Your task to perform on an android device: Set the phone to "Do not disturb". Image 0: 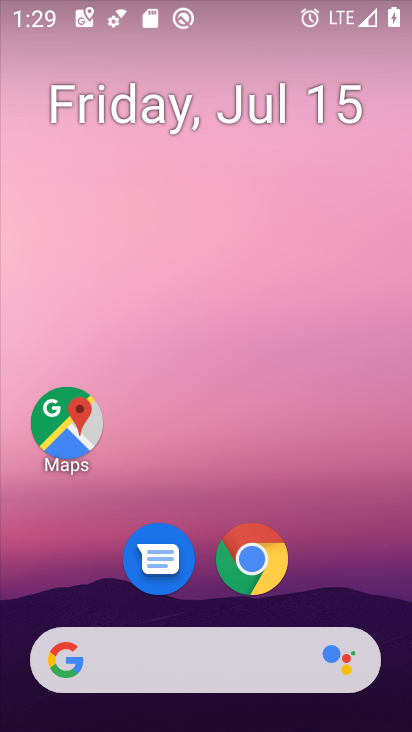
Step 0: drag from (354, 574) to (375, 84)
Your task to perform on an android device: Set the phone to "Do not disturb". Image 1: 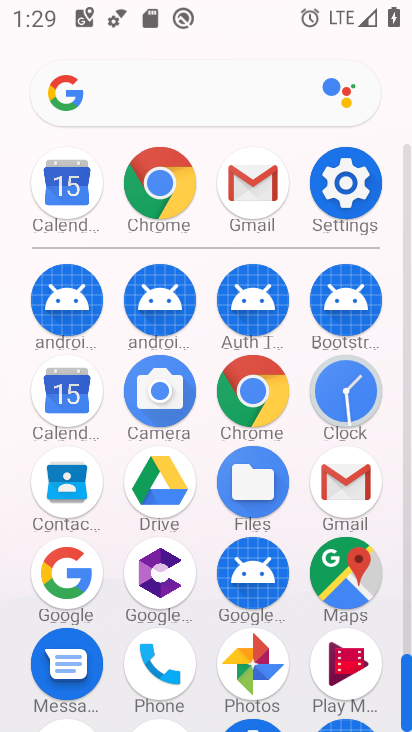
Step 1: click (347, 200)
Your task to perform on an android device: Set the phone to "Do not disturb". Image 2: 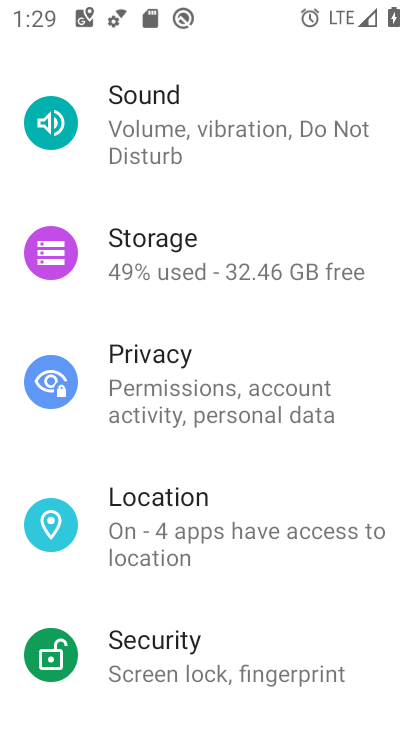
Step 2: drag from (363, 201) to (376, 340)
Your task to perform on an android device: Set the phone to "Do not disturb". Image 3: 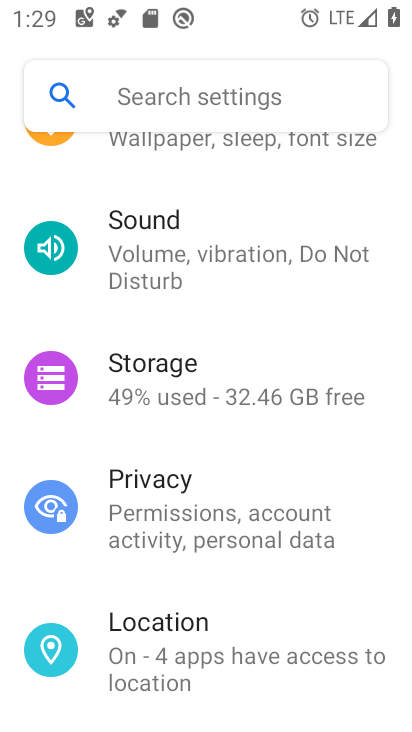
Step 3: drag from (380, 207) to (382, 389)
Your task to perform on an android device: Set the phone to "Do not disturb". Image 4: 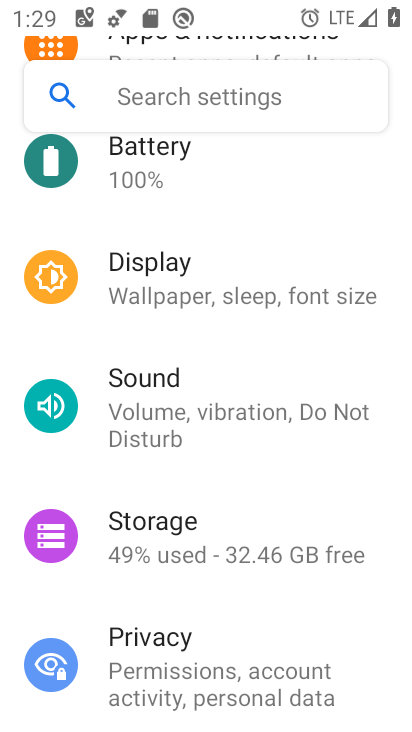
Step 4: drag from (367, 212) to (366, 418)
Your task to perform on an android device: Set the phone to "Do not disturb". Image 5: 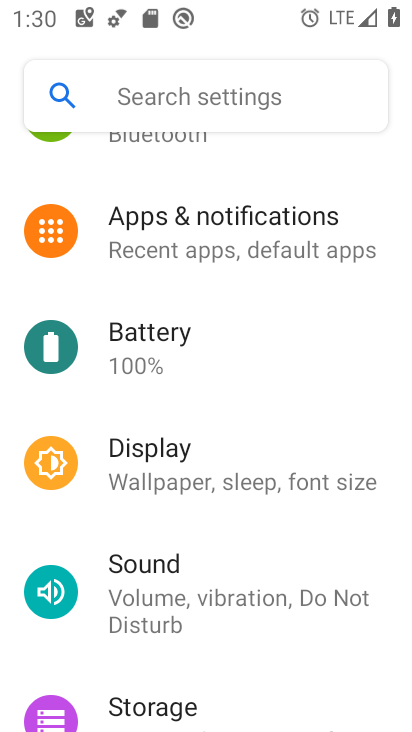
Step 5: click (302, 577)
Your task to perform on an android device: Set the phone to "Do not disturb". Image 6: 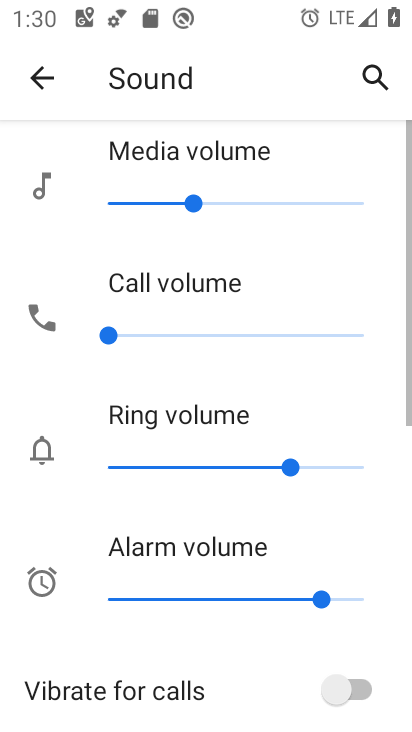
Step 6: drag from (365, 543) to (367, 450)
Your task to perform on an android device: Set the phone to "Do not disturb". Image 7: 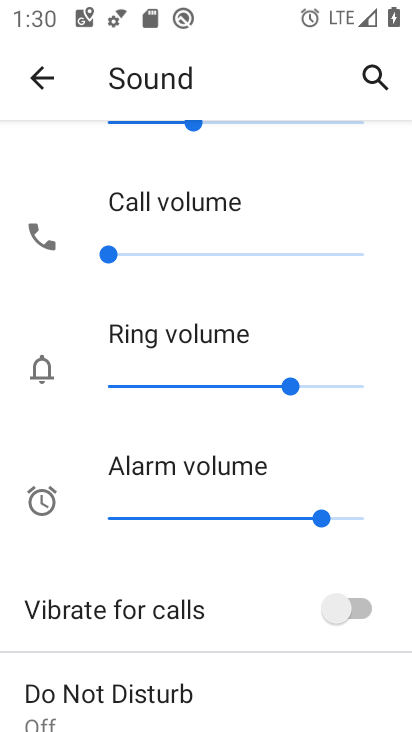
Step 7: drag from (366, 546) to (360, 432)
Your task to perform on an android device: Set the phone to "Do not disturb". Image 8: 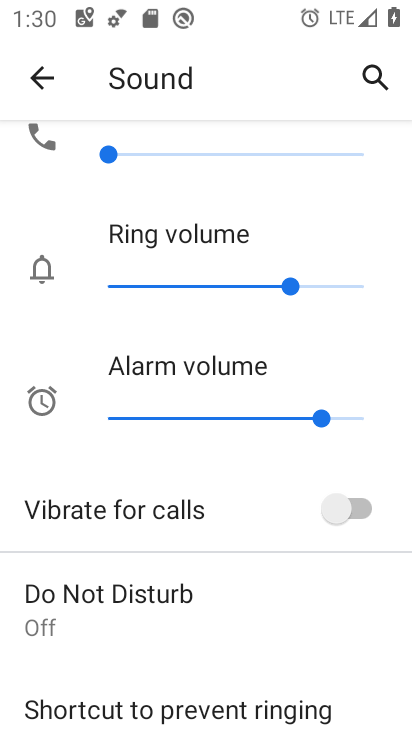
Step 8: drag from (371, 613) to (372, 497)
Your task to perform on an android device: Set the phone to "Do not disturb". Image 9: 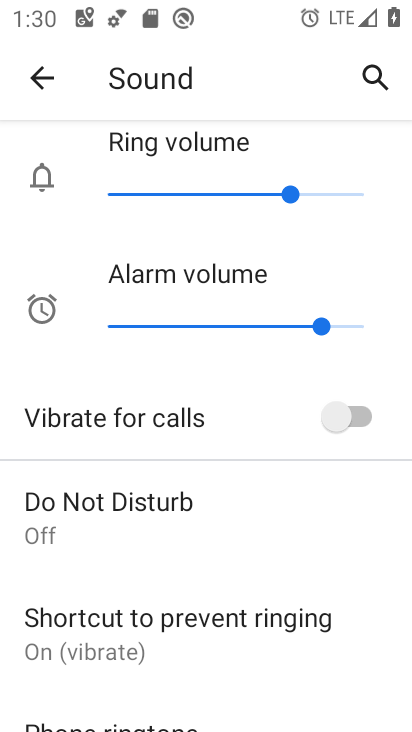
Step 9: drag from (362, 629) to (352, 497)
Your task to perform on an android device: Set the phone to "Do not disturb". Image 10: 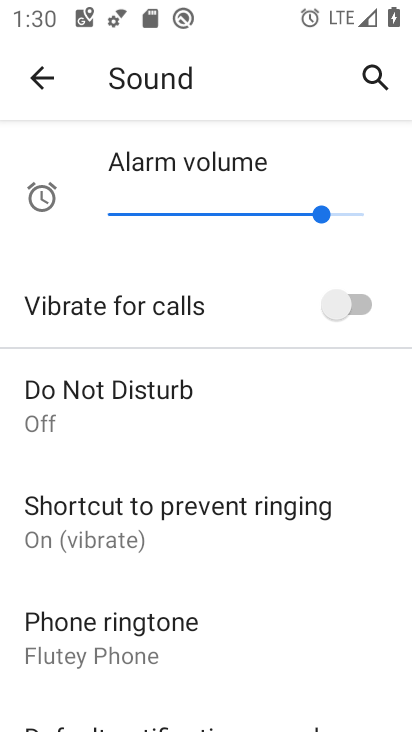
Step 10: click (172, 417)
Your task to perform on an android device: Set the phone to "Do not disturb". Image 11: 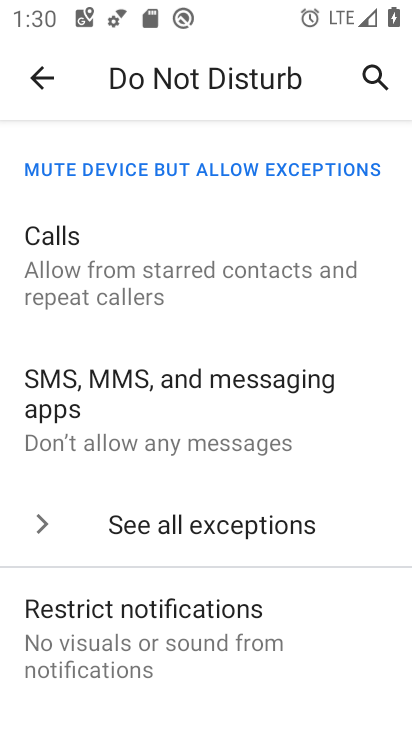
Step 11: drag from (243, 576) to (244, 470)
Your task to perform on an android device: Set the phone to "Do not disturb". Image 12: 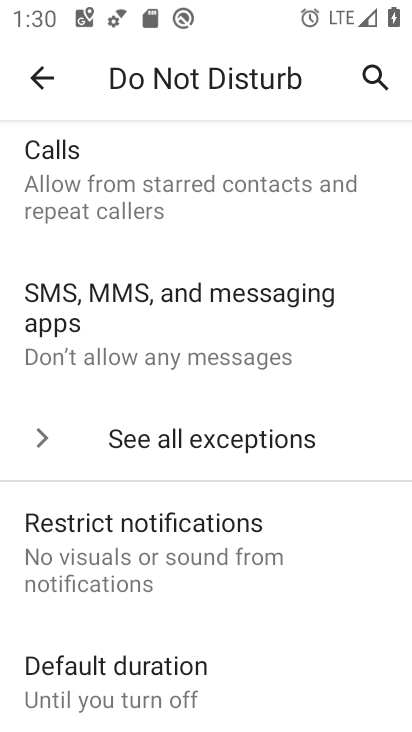
Step 12: drag from (284, 594) to (306, 483)
Your task to perform on an android device: Set the phone to "Do not disturb". Image 13: 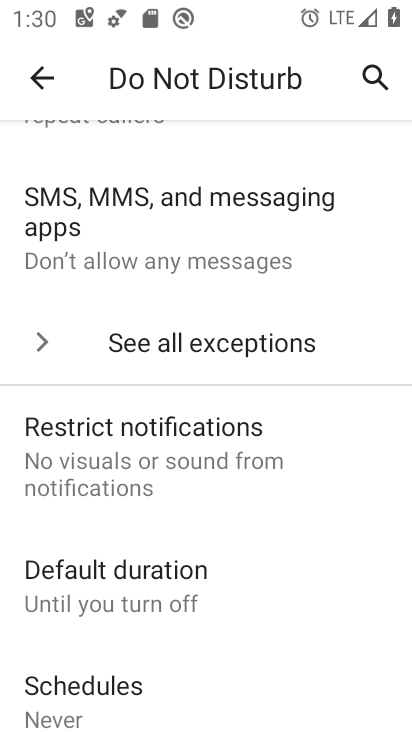
Step 13: drag from (310, 616) to (317, 503)
Your task to perform on an android device: Set the phone to "Do not disturb". Image 14: 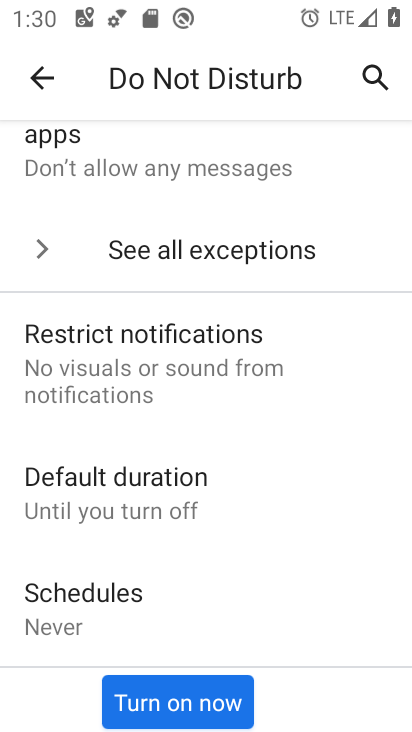
Step 14: drag from (315, 604) to (314, 460)
Your task to perform on an android device: Set the phone to "Do not disturb". Image 15: 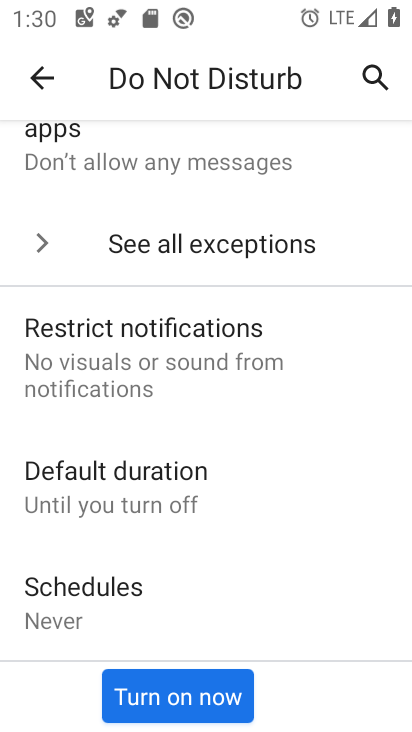
Step 15: click (208, 691)
Your task to perform on an android device: Set the phone to "Do not disturb". Image 16: 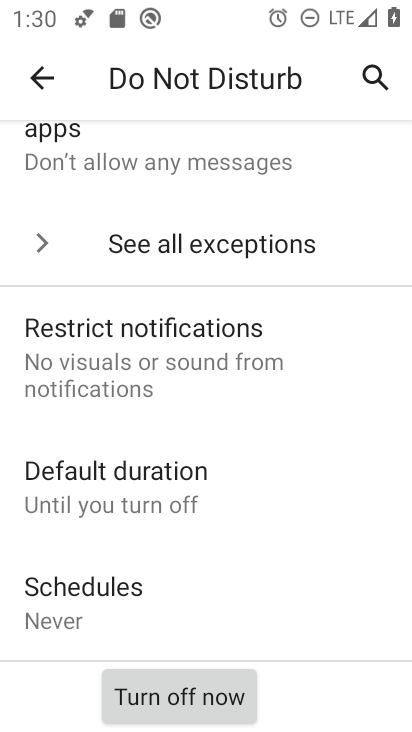
Step 16: task complete